Your task to perform on an android device: toggle notification dots Image 0: 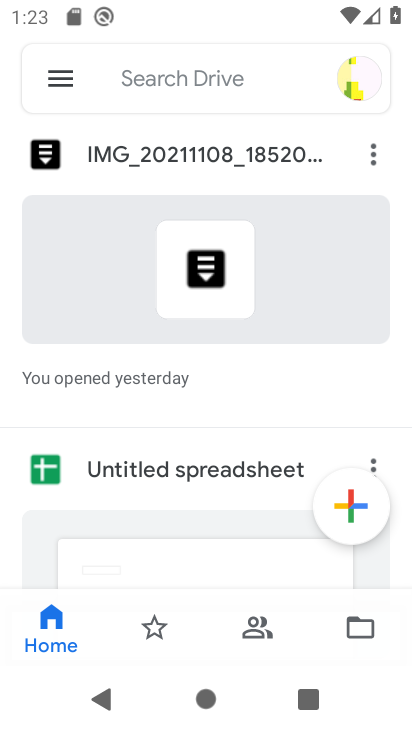
Step 0: press home button
Your task to perform on an android device: toggle notification dots Image 1: 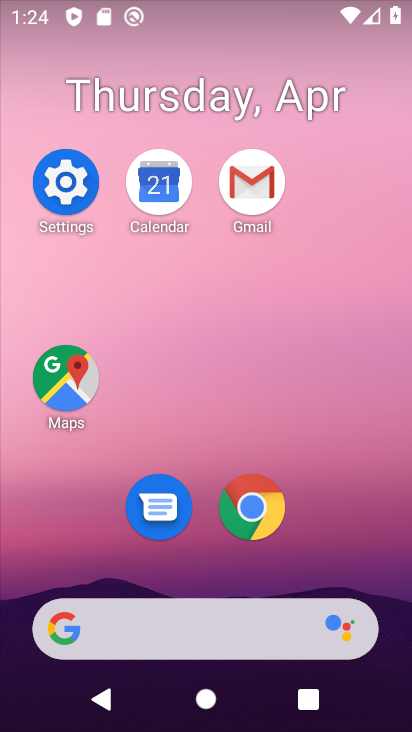
Step 1: click (80, 181)
Your task to perform on an android device: toggle notification dots Image 2: 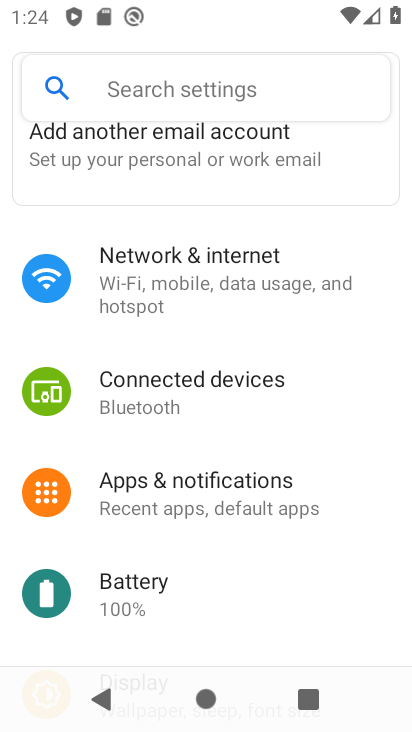
Step 2: click (180, 477)
Your task to perform on an android device: toggle notification dots Image 3: 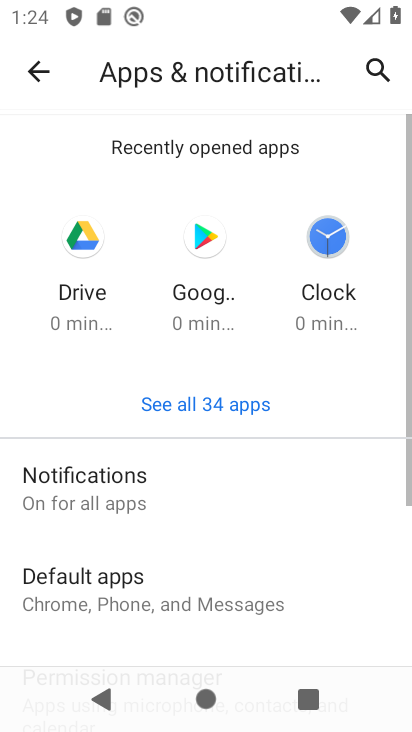
Step 3: click (168, 501)
Your task to perform on an android device: toggle notification dots Image 4: 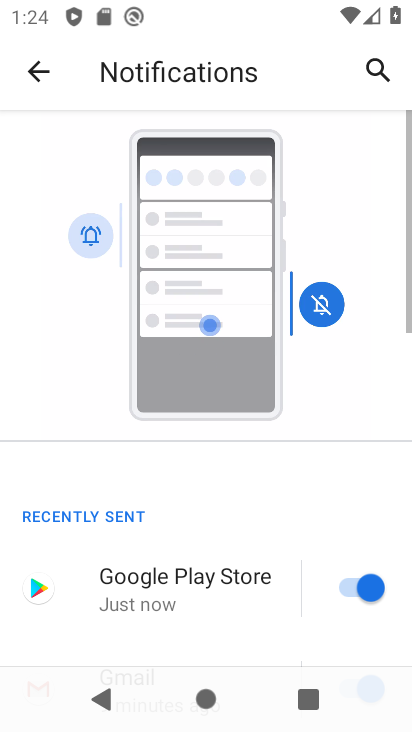
Step 4: drag from (208, 453) to (244, 60)
Your task to perform on an android device: toggle notification dots Image 5: 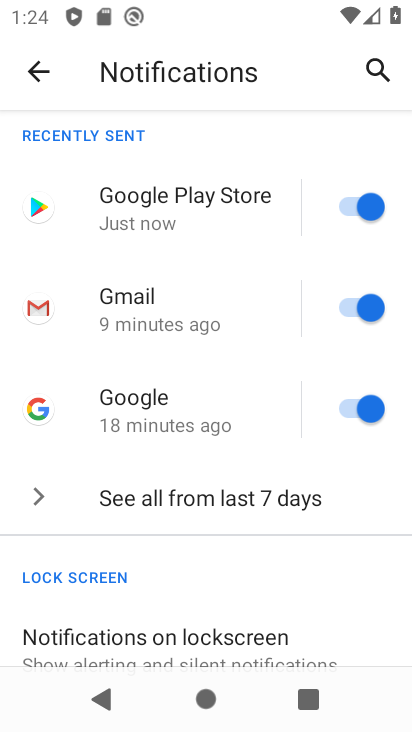
Step 5: drag from (238, 583) to (257, 98)
Your task to perform on an android device: toggle notification dots Image 6: 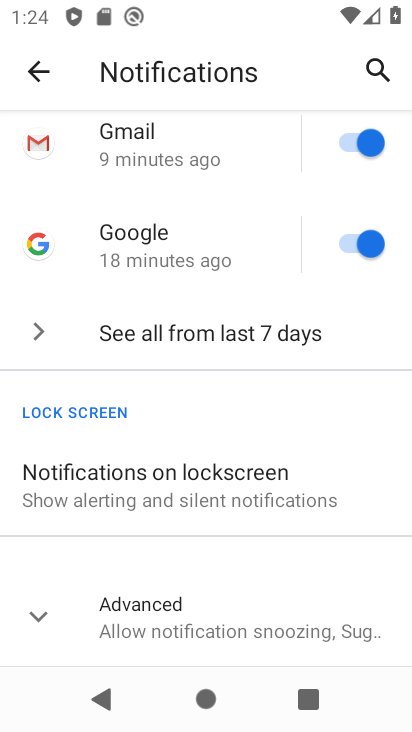
Step 6: click (184, 598)
Your task to perform on an android device: toggle notification dots Image 7: 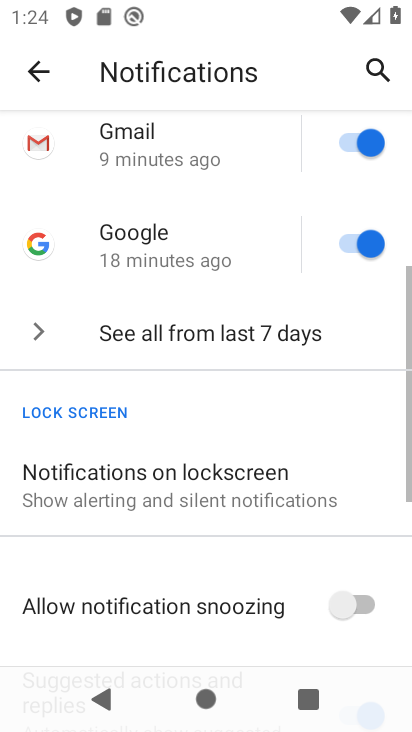
Step 7: drag from (180, 578) to (209, 165)
Your task to perform on an android device: toggle notification dots Image 8: 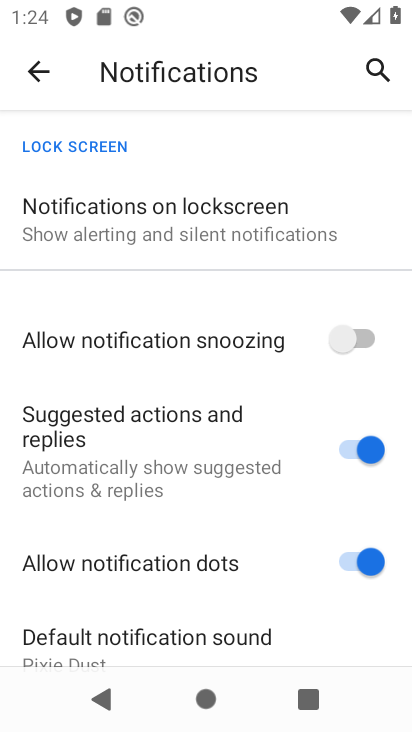
Step 8: click (359, 548)
Your task to perform on an android device: toggle notification dots Image 9: 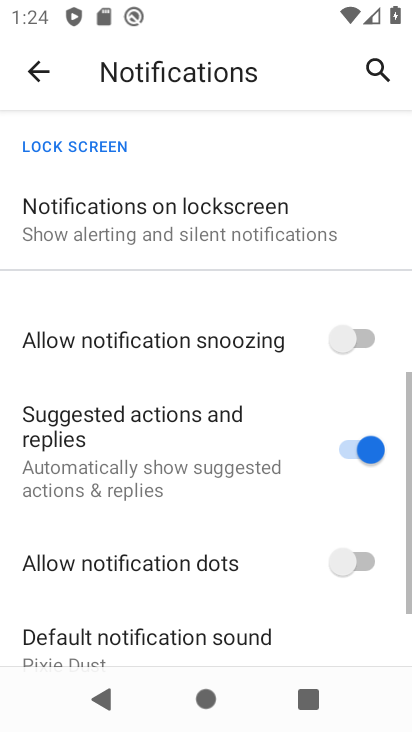
Step 9: task complete